Your task to perform on an android device: What is the news today? Image 0: 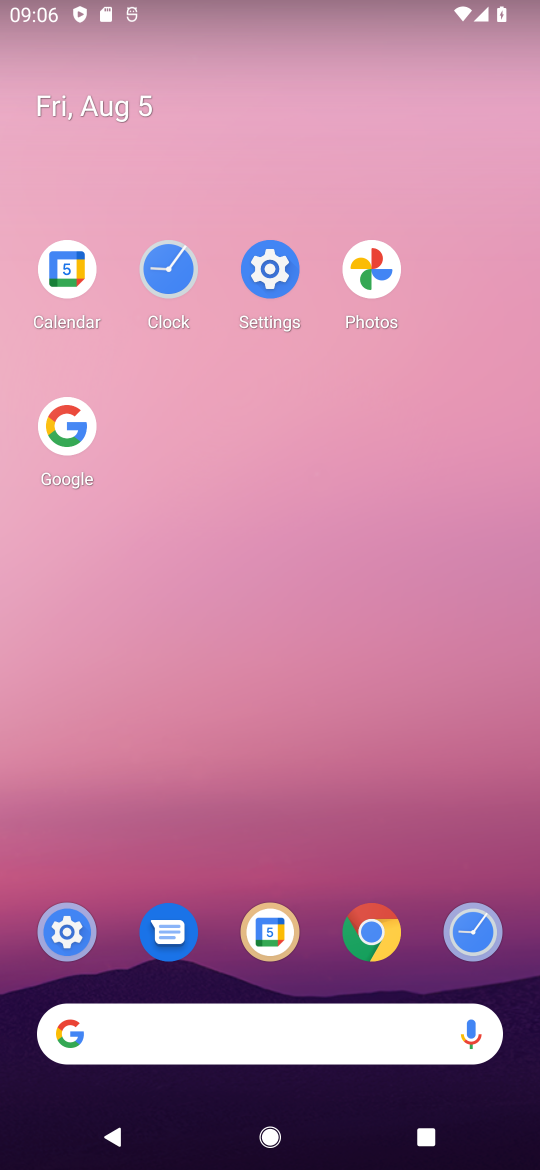
Step 0: click (265, 275)
Your task to perform on an android device: What is the news today? Image 1: 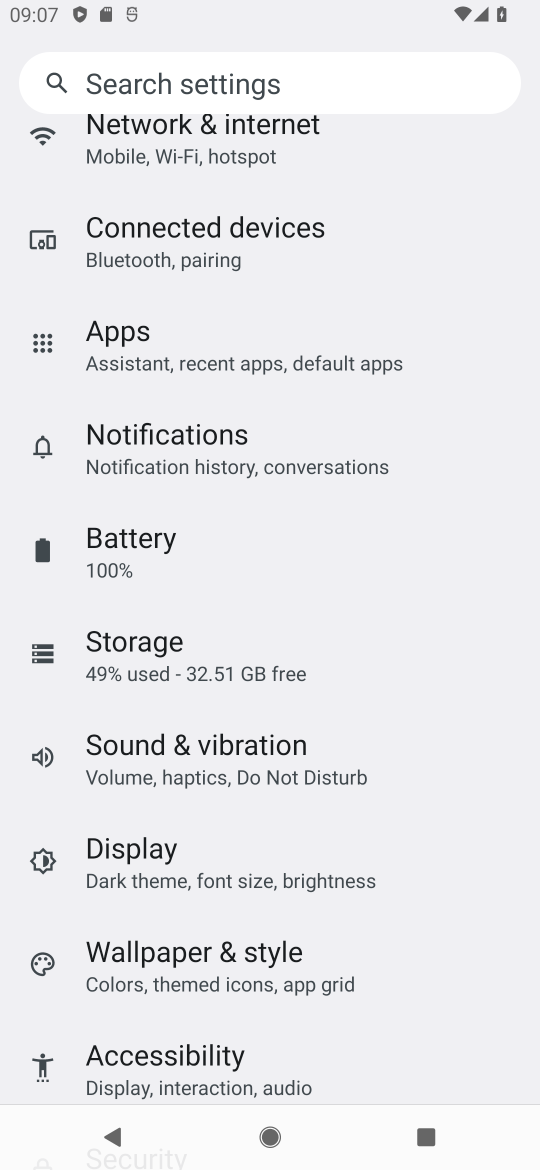
Step 1: click (289, 558)
Your task to perform on an android device: What is the news today? Image 2: 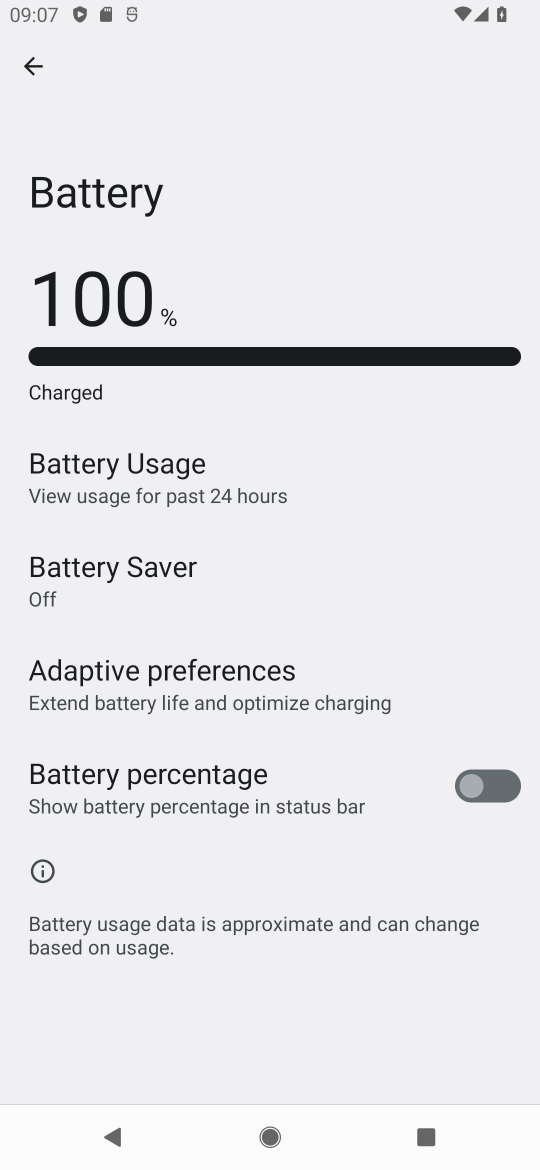
Step 2: click (287, 471)
Your task to perform on an android device: What is the news today? Image 3: 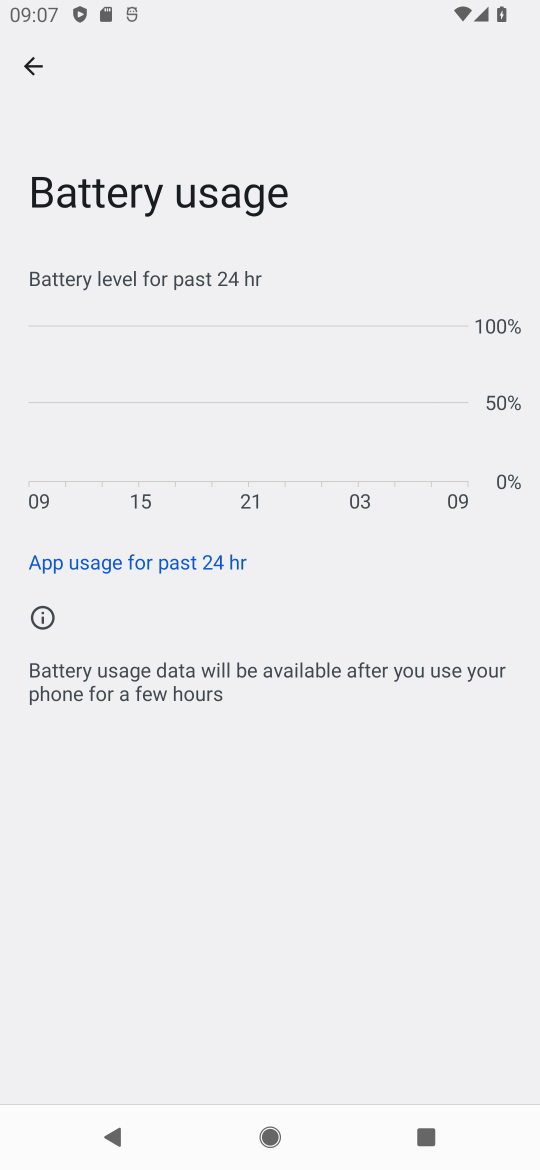
Step 3: task complete